Your task to perform on an android device: Open the web browser Image 0: 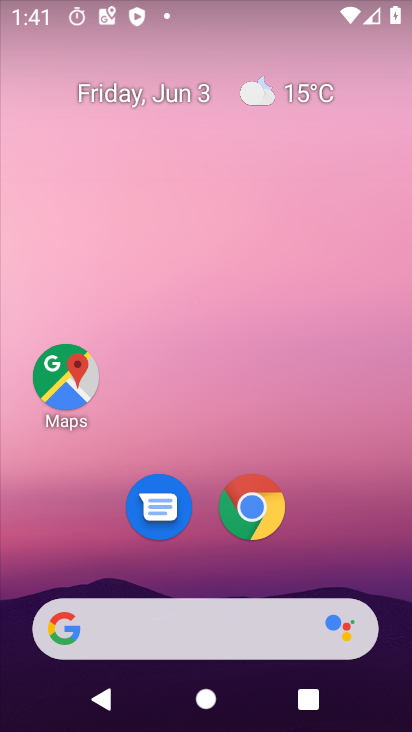
Step 0: drag from (392, 629) to (297, 59)
Your task to perform on an android device: Open the web browser Image 1: 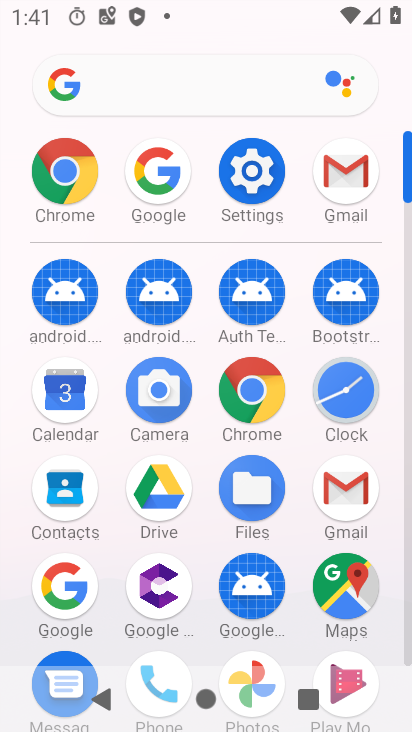
Step 1: click (71, 585)
Your task to perform on an android device: Open the web browser Image 2: 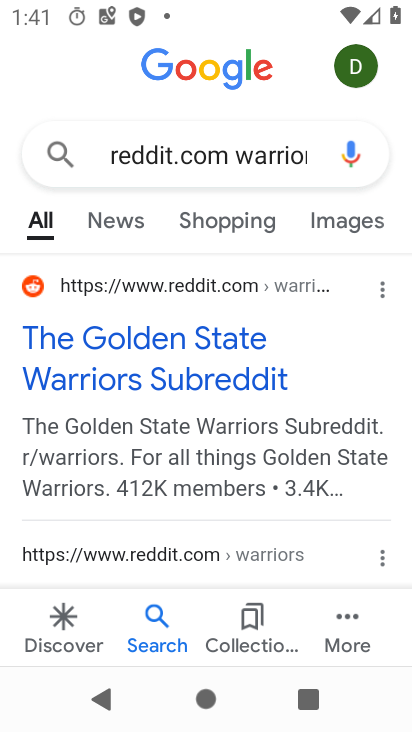
Step 2: press back button
Your task to perform on an android device: Open the web browser Image 3: 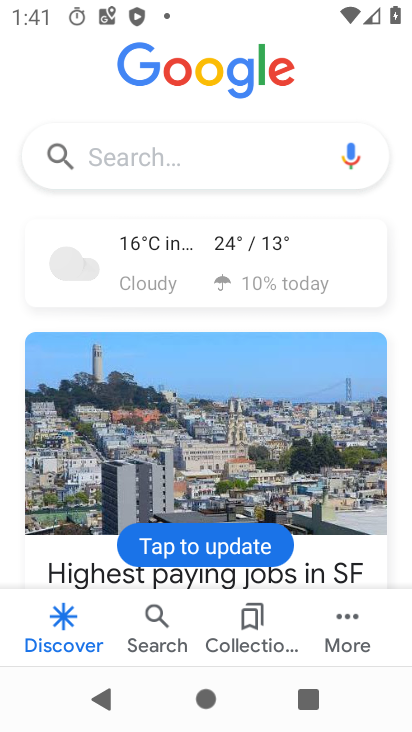
Step 3: click (158, 161)
Your task to perform on an android device: Open the web browser Image 4: 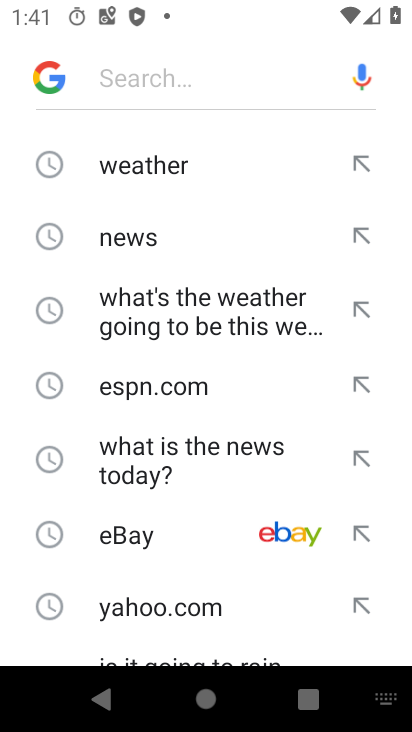
Step 4: drag from (172, 594) to (225, 195)
Your task to perform on an android device: Open the web browser Image 5: 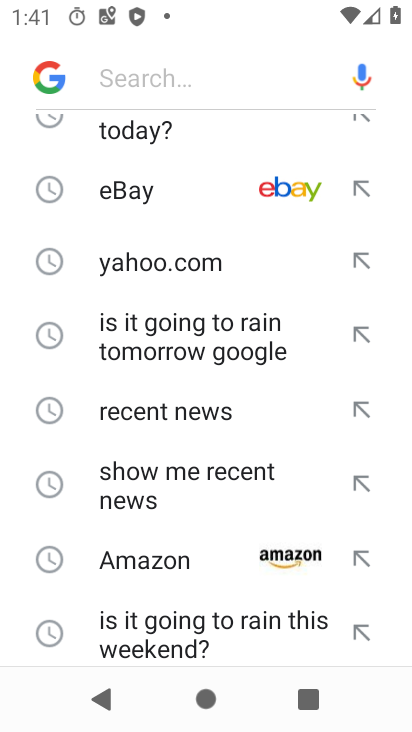
Step 5: drag from (159, 587) to (241, 243)
Your task to perform on an android device: Open the web browser Image 6: 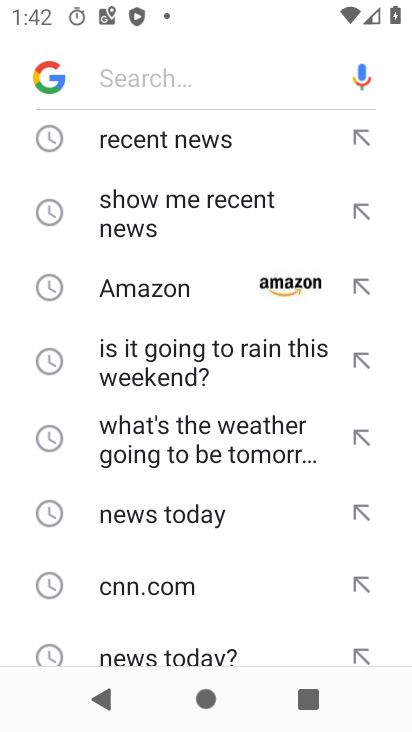
Step 6: drag from (170, 580) to (219, 156)
Your task to perform on an android device: Open the web browser Image 7: 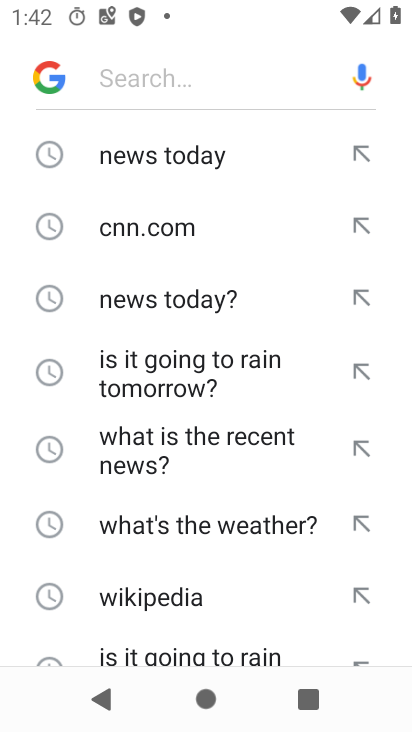
Step 7: drag from (136, 595) to (199, 146)
Your task to perform on an android device: Open the web browser Image 8: 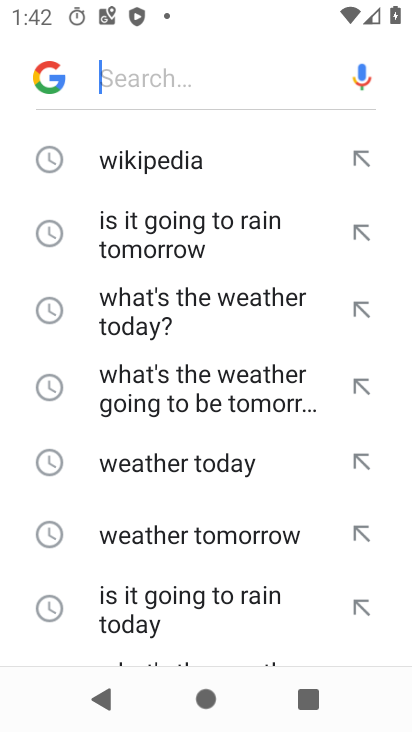
Step 8: drag from (167, 588) to (256, 128)
Your task to perform on an android device: Open the web browser Image 9: 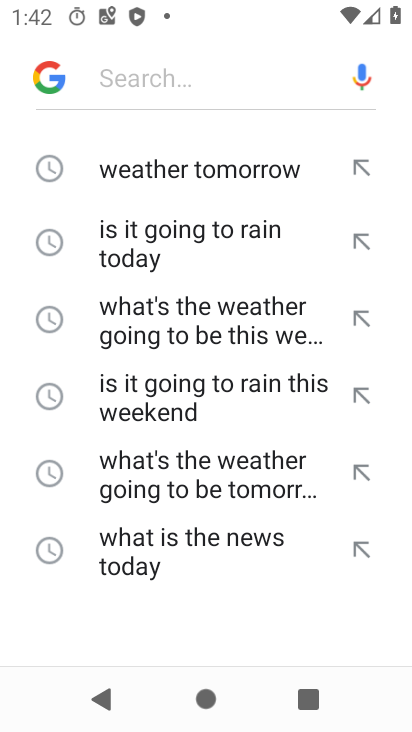
Step 9: type "web browser"
Your task to perform on an android device: Open the web browser Image 10: 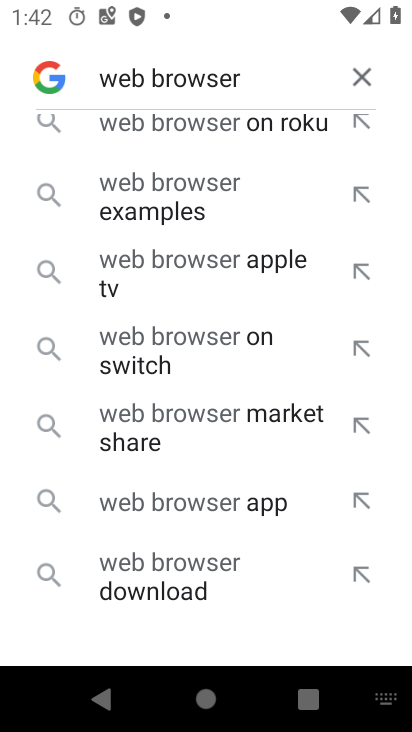
Step 10: drag from (237, 211) to (198, 611)
Your task to perform on an android device: Open the web browser Image 11: 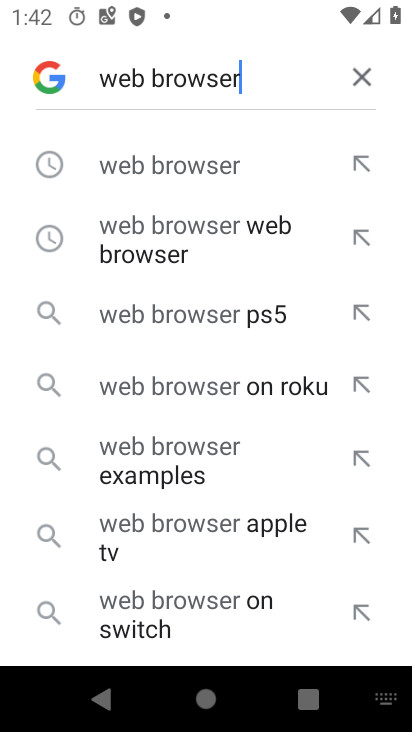
Step 11: click (200, 176)
Your task to perform on an android device: Open the web browser Image 12: 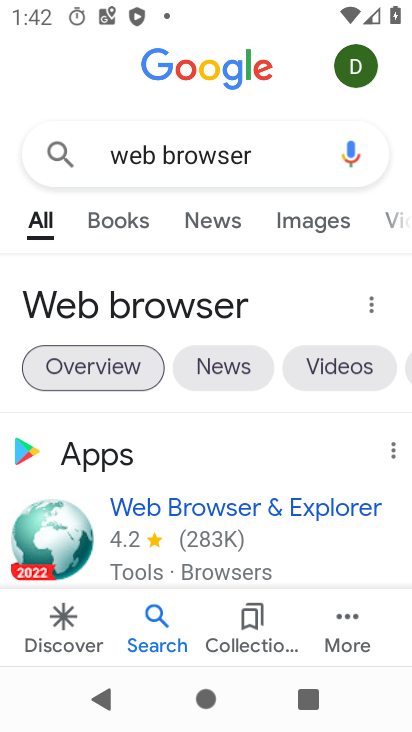
Step 12: task complete